Your task to perform on an android device: change timer sound Image 0: 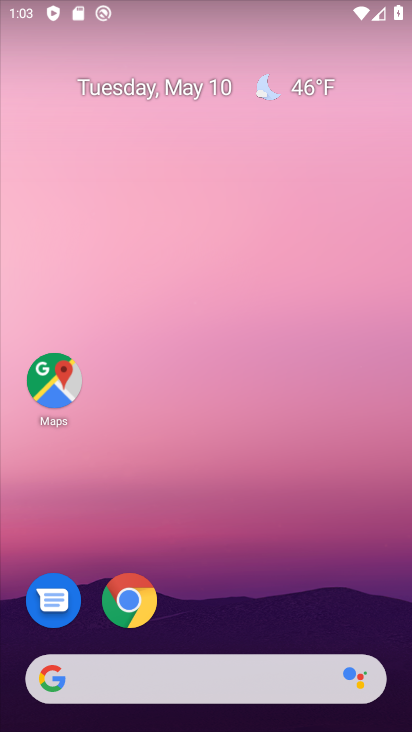
Step 0: press home button
Your task to perform on an android device: change timer sound Image 1: 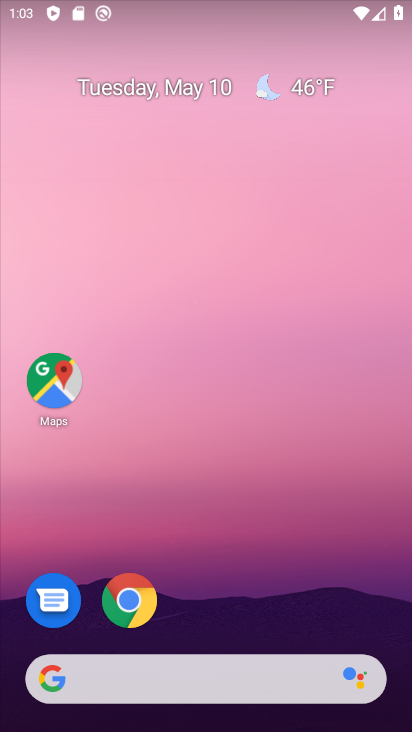
Step 1: drag from (173, 675) to (359, 124)
Your task to perform on an android device: change timer sound Image 2: 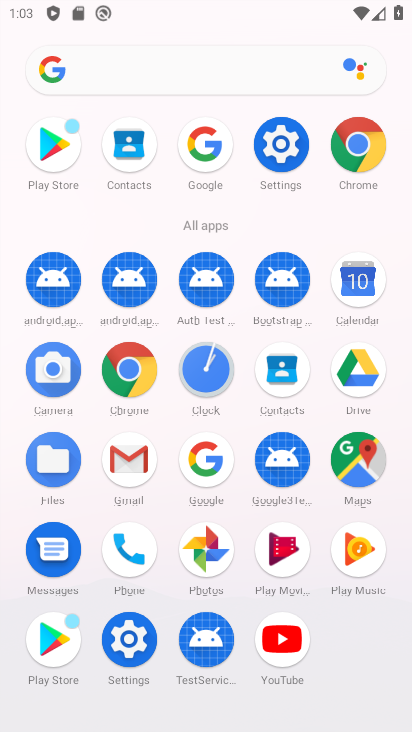
Step 2: click (208, 389)
Your task to perform on an android device: change timer sound Image 3: 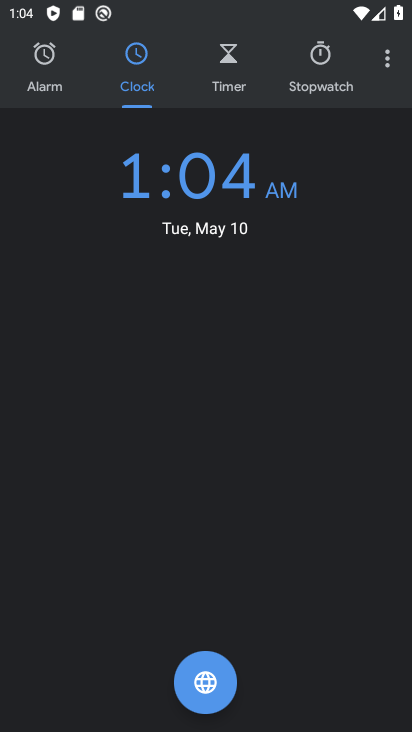
Step 3: click (389, 68)
Your task to perform on an android device: change timer sound Image 4: 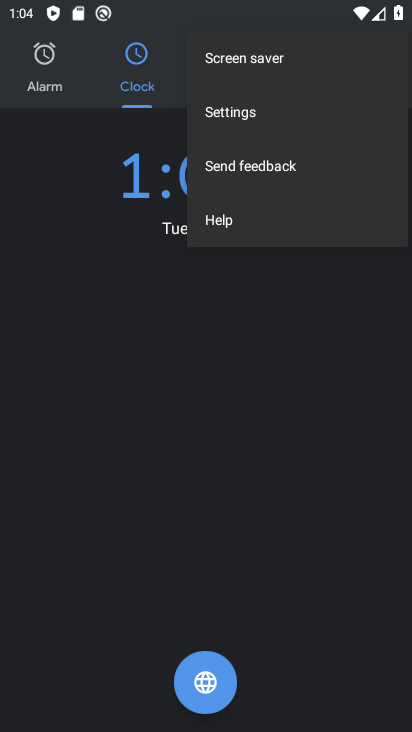
Step 4: click (255, 109)
Your task to perform on an android device: change timer sound Image 5: 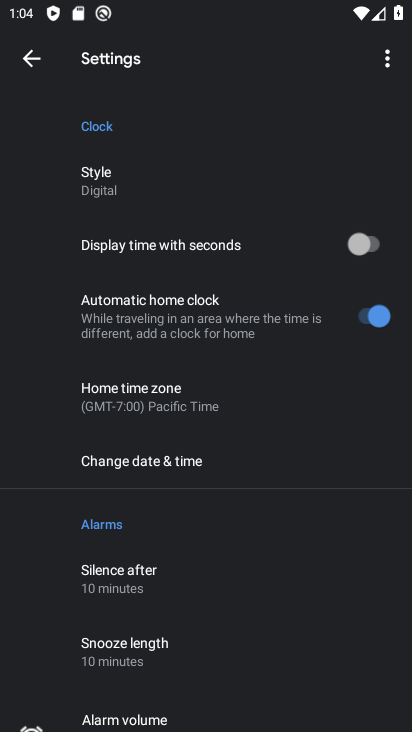
Step 5: drag from (193, 580) to (382, 177)
Your task to perform on an android device: change timer sound Image 6: 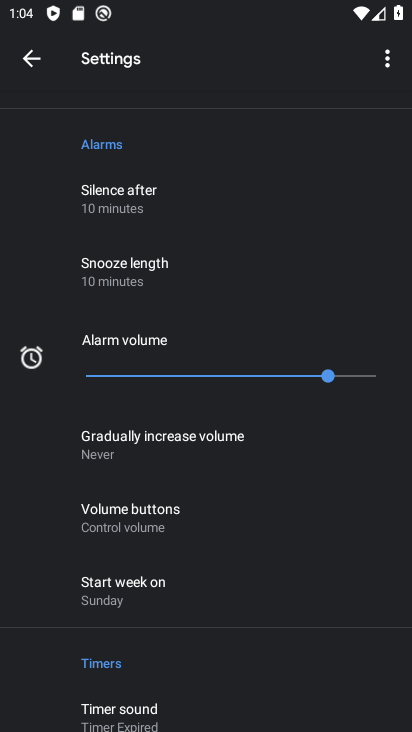
Step 6: drag from (221, 552) to (315, 268)
Your task to perform on an android device: change timer sound Image 7: 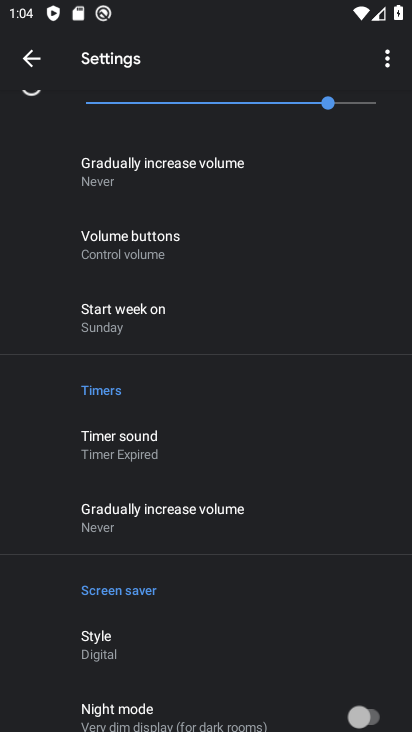
Step 7: click (146, 453)
Your task to perform on an android device: change timer sound Image 8: 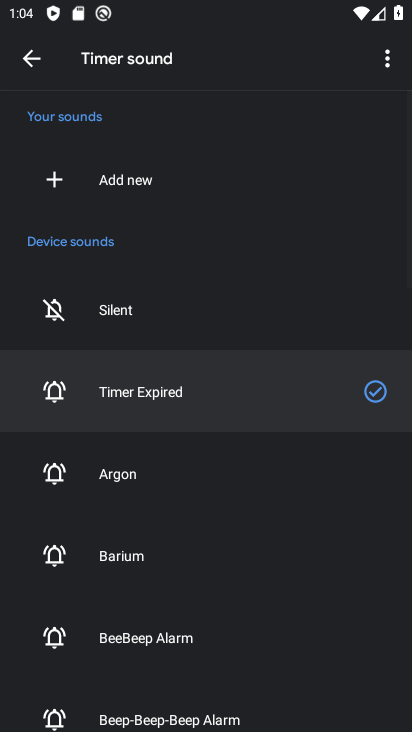
Step 8: click (110, 473)
Your task to perform on an android device: change timer sound Image 9: 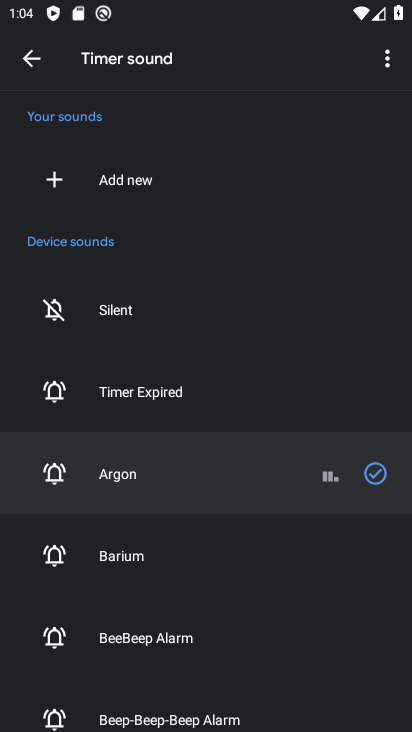
Step 9: task complete